Your task to perform on an android device: open wifi settings Image 0: 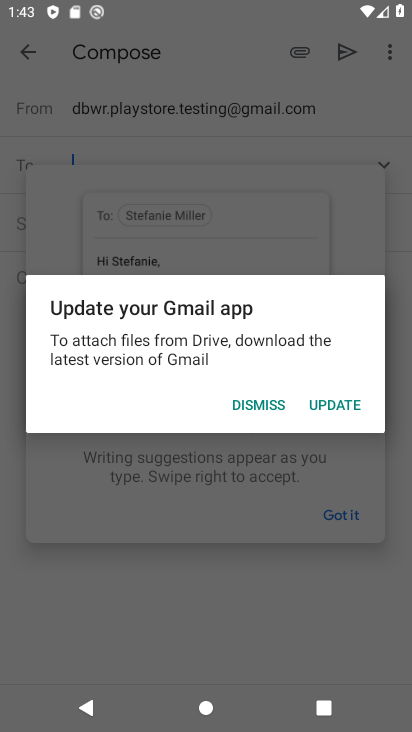
Step 0: press home button
Your task to perform on an android device: open wifi settings Image 1: 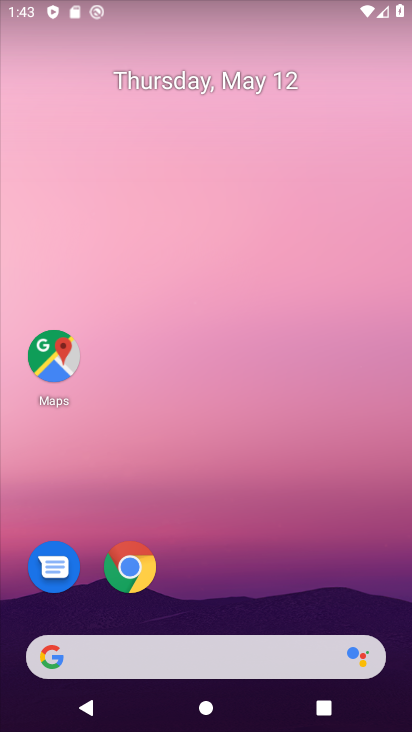
Step 1: drag from (226, 601) to (216, 218)
Your task to perform on an android device: open wifi settings Image 2: 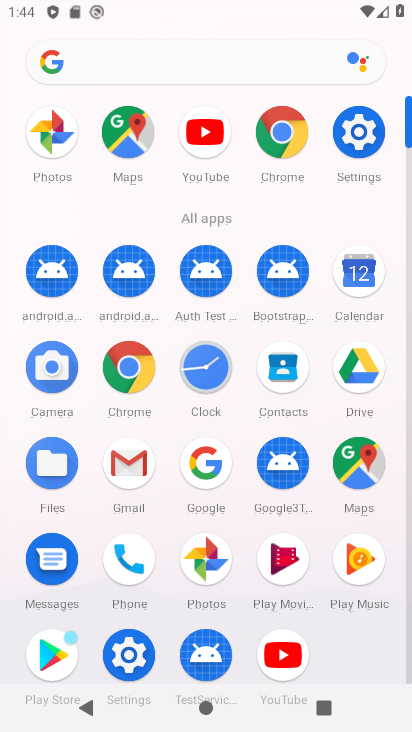
Step 2: click (348, 128)
Your task to perform on an android device: open wifi settings Image 3: 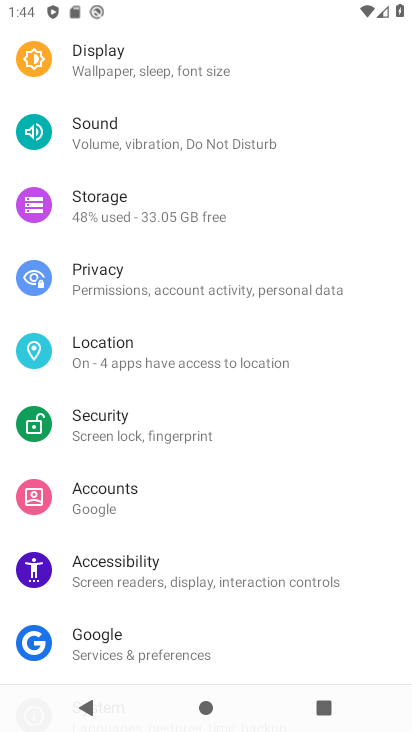
Step 3: drag from (185, 85) to (213, 488)
Your task to perform on an android device: open wifi settings Image 4: 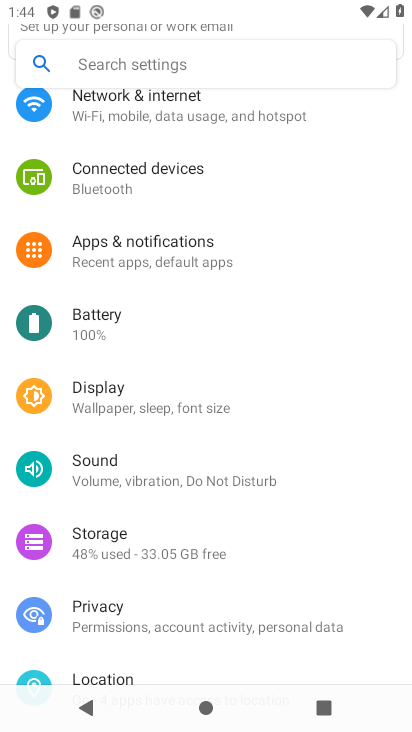
Step 4: drag from (232, 103) to (257, 479)
Your task to perform on an android device: open wifi settings Image 5: 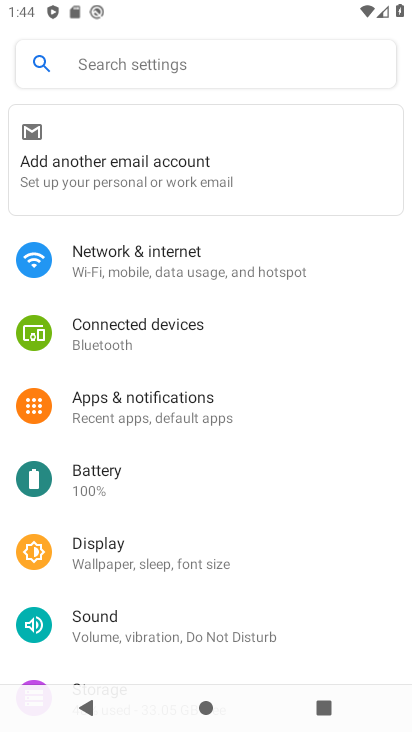
Step 5: click (153, 263)
Your task to perform on an android device: open wifi settings Image 6: 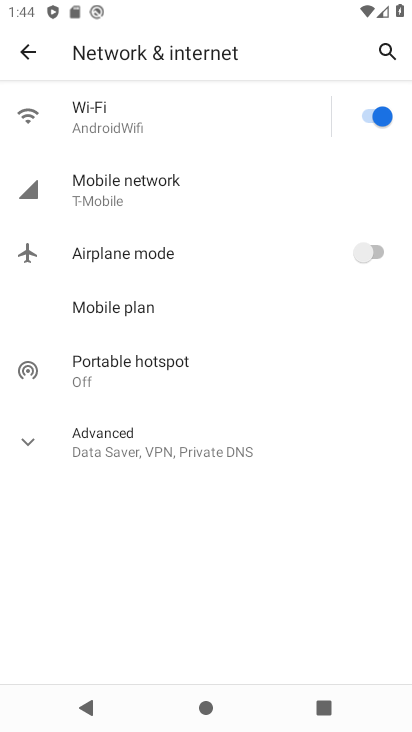
Step 6: click (139, 447)
Your task to perform on an android device: open wifi settings Image 7: 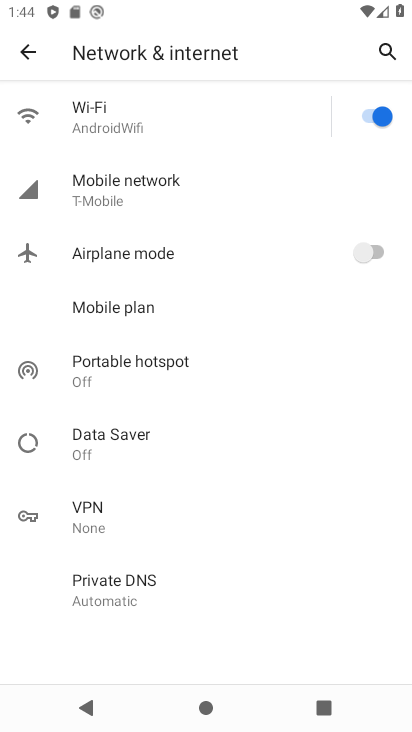
Step 7: click (107, 113)
Your task to perform on an android device: open wifi settings Image 8: 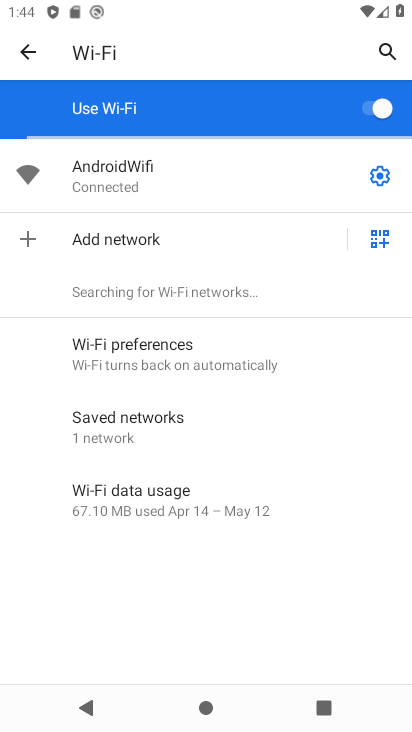
Step 8: click (379, 164)
Your task to perform on an android device: open wifi settings Image 9: 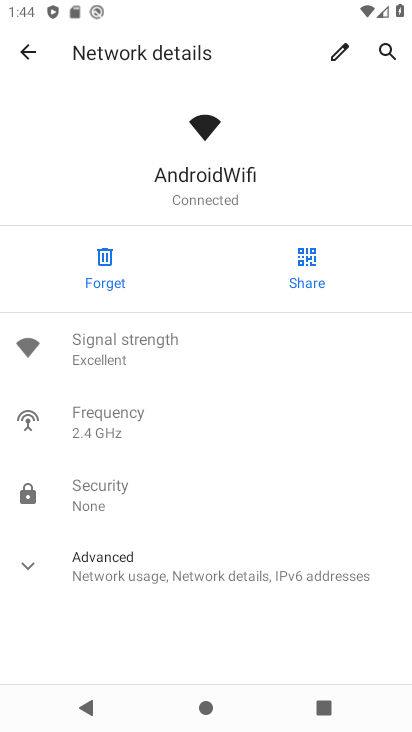
Step 9: drag from (209, 592) to (209, 365)
Your task to perform on an android device: open wifi settings Image 10: 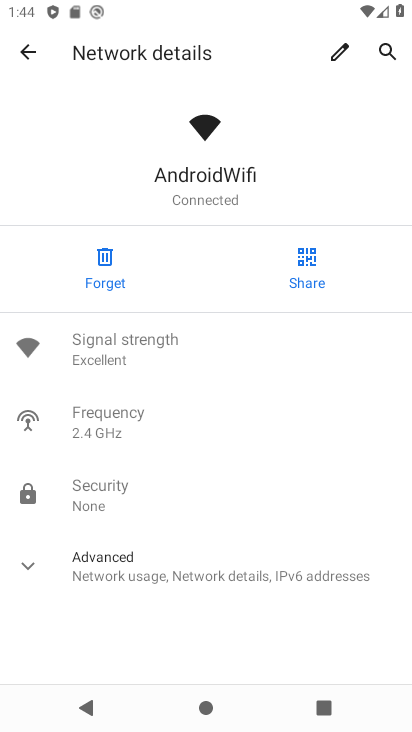
Step 10: click (164, 570)
Your task to perform on an android device: open wifi settings Image 11: 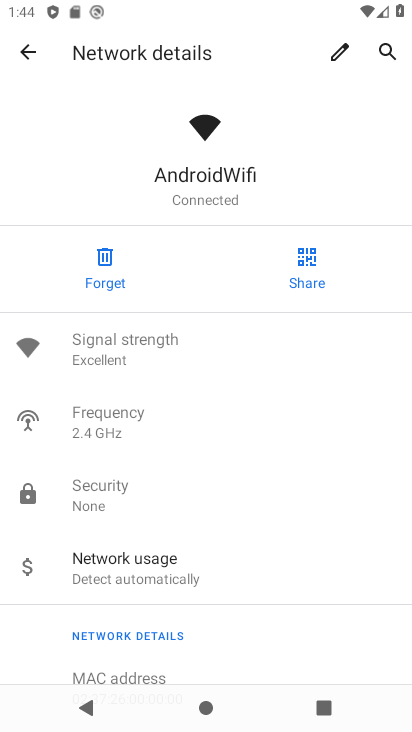
Step 11: task complete